Your task to perform on an android device: toggle notification dots Image 0: 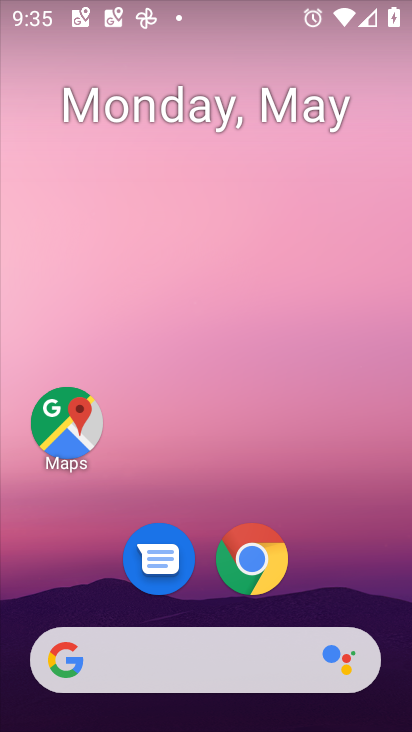
Step 0: drag from (388, 669) to (291, 46)
Your task to perform on an android device: toggle notification dots Image 1: 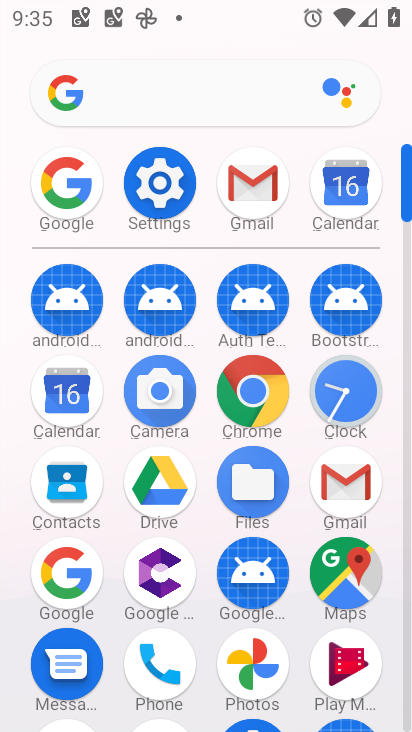
Step 1: click (164, 187)
Your task to perform on an android device: toggle notification dots Image 2: 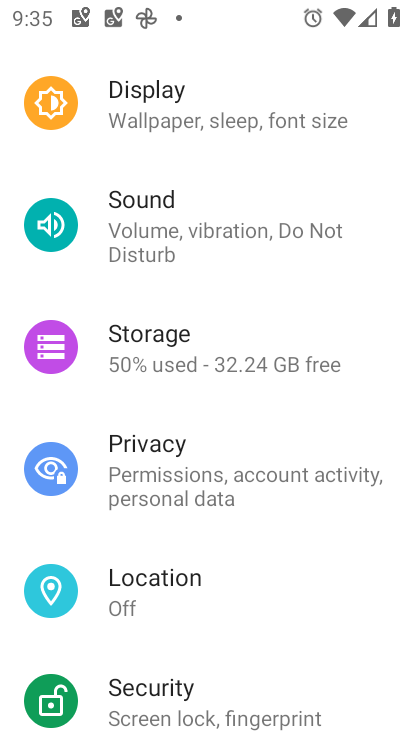
Step 2: drag from (202, 170) to (218, 471)
Your task to perform on an android device: toggle notification dots Image 3: 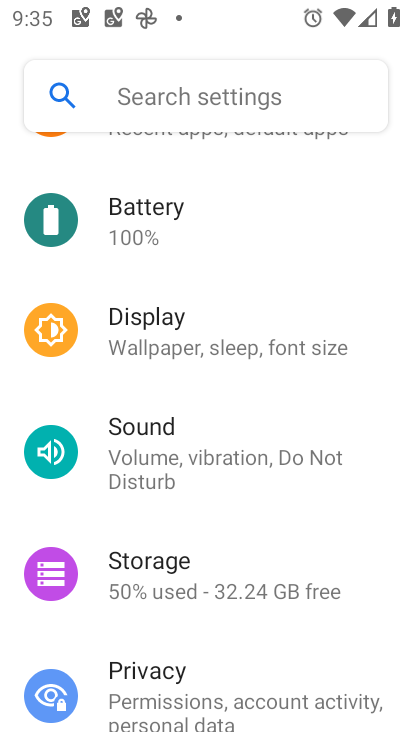
Step 3: drag from (197, 177) to (228, 508)
Your task to perform on an android device: toggle notification dots Image 4: 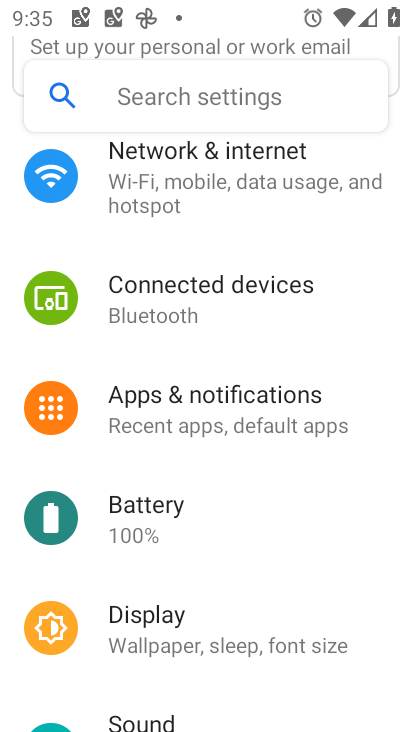
Step 4: click (197, 424)
Your task to perform on an android device: toggle notification dots Image 5: 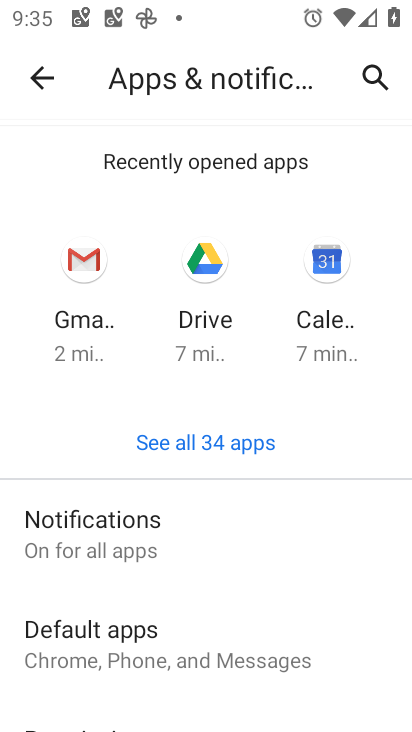
Step 5: click (245, 535)
Your task to perform on an android device: toggle notification dots Image 6: 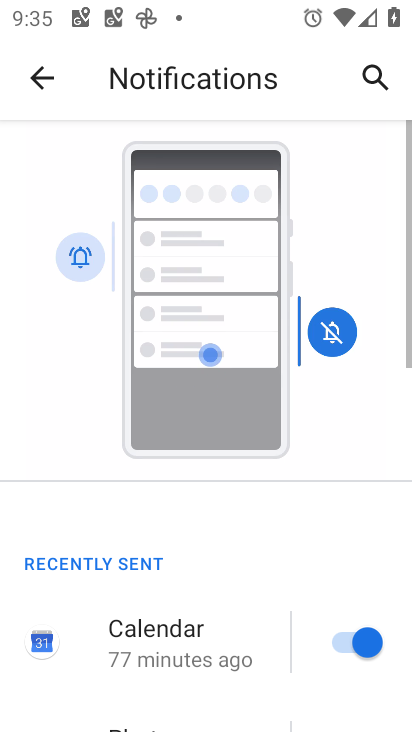
Step 6: drag from (165, 644) to (201, 69)
Your task to perform on an android device: toggle notification dots Image 7: 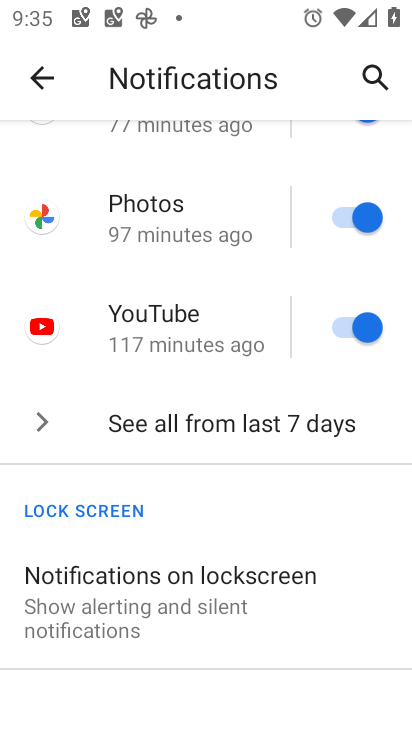
Step 7: drag from (144, 604) to (239, 146)
Your task to perform on an android device: toggle notification dots Image 8: 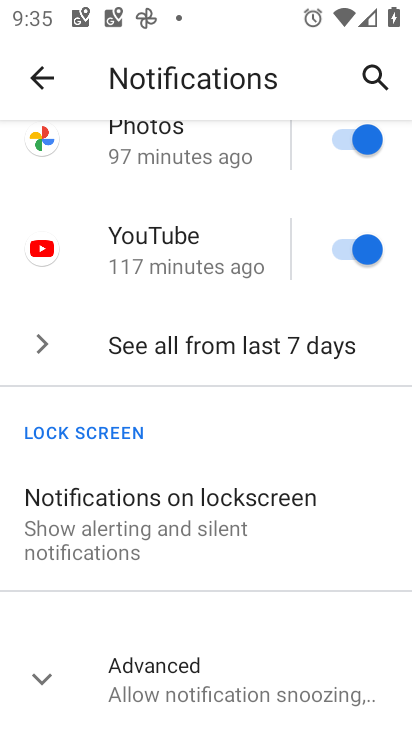
Step 8: click (47, 672)
Your task to perform on an android device: toggle notification dots Image 9: 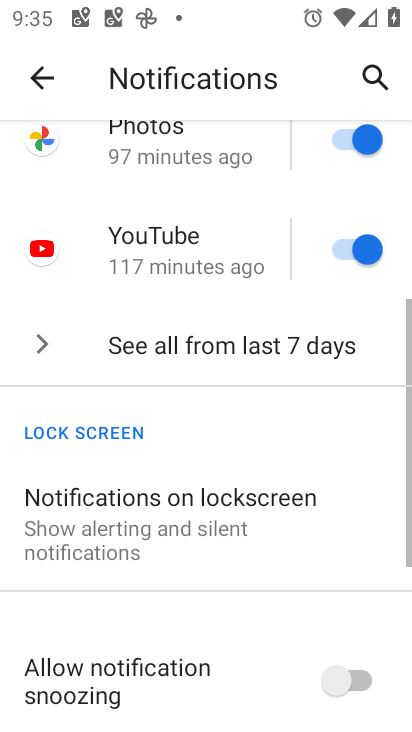
Step 9: drag from (113, 672) to (150, 258)
Your task to perform on an android device: toggle notification dots Image 10: 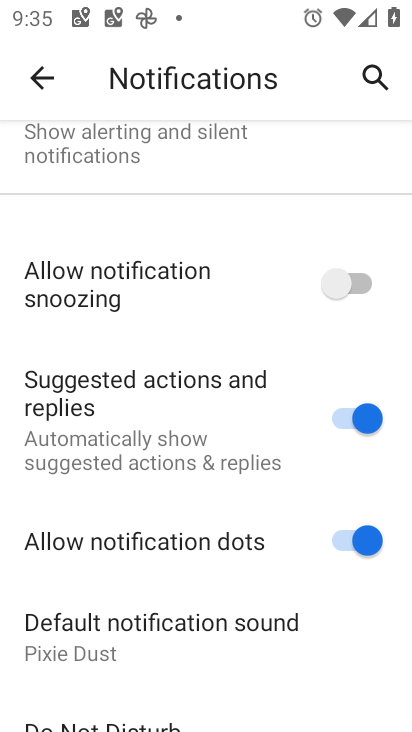
Step 10: click (284, 544)
Your task to perform on an android device: toggle notification dots Image 11: 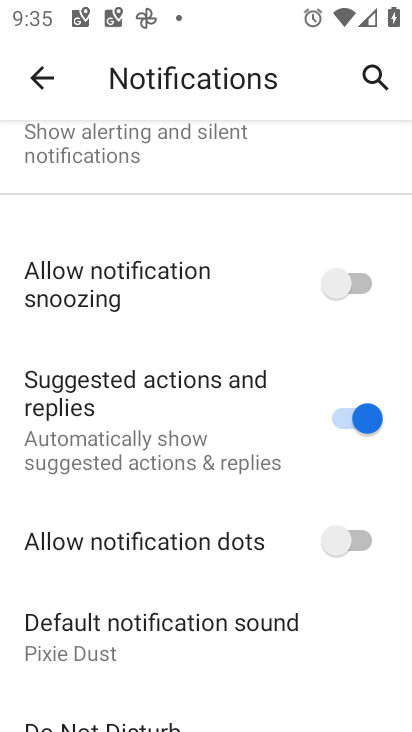
Step 11: task complete